Your task to perform on an android device: Open battery settings Image 0: 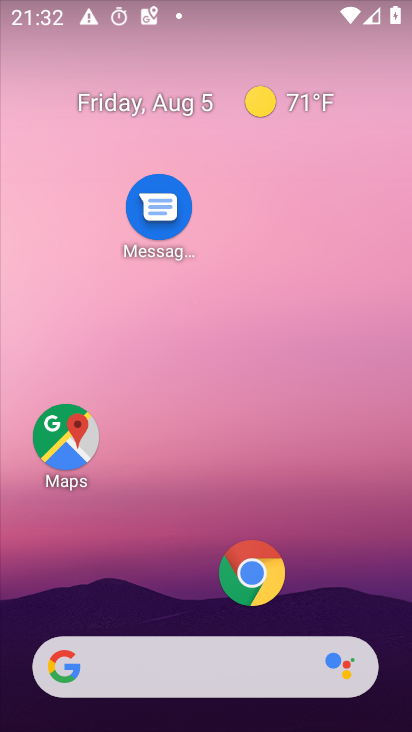
Step 0: press home button
Your task to perform on an android device: Open battery settings Image 1: 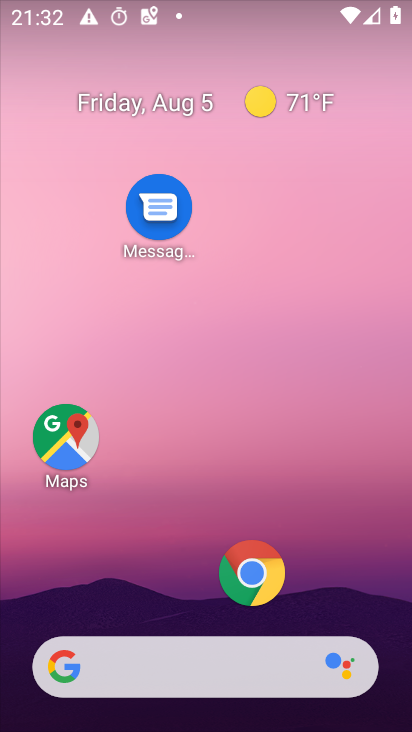
Step 1: click (231, 33)
Your task to perform on an android device: Open battery settings Image 2: 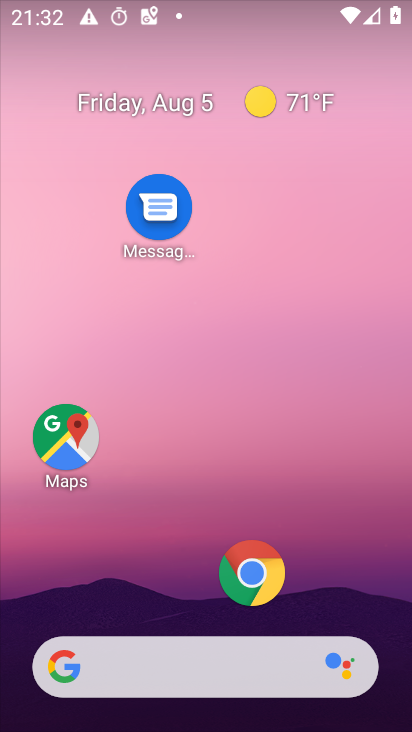
Step 2: drag from (314, 608) to (329, 2)
Your task to perform on an android device: Open battery settings Image 3: 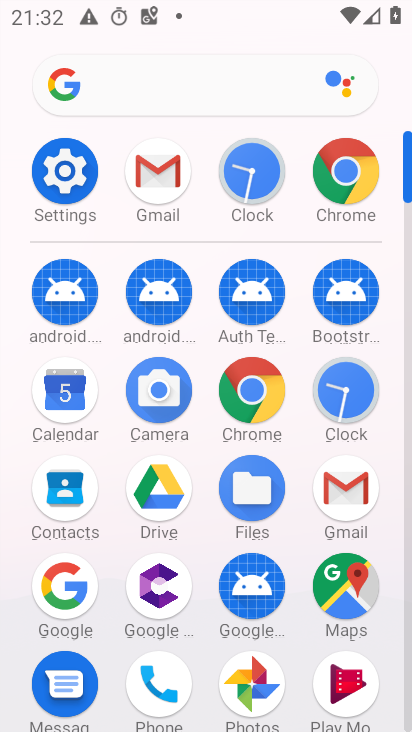
Step 3: click (59, 163)
Your task to perform on an android device: Open battery settings Image 4: 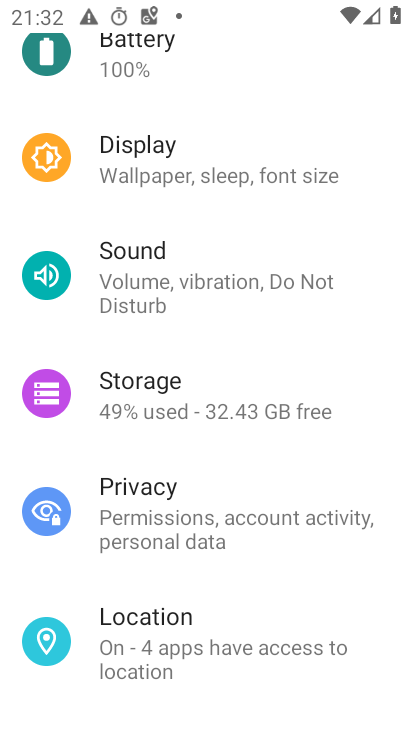
Step 4: click (176, 51)
Your task to perform on an android device: Open battery settings Image 5: 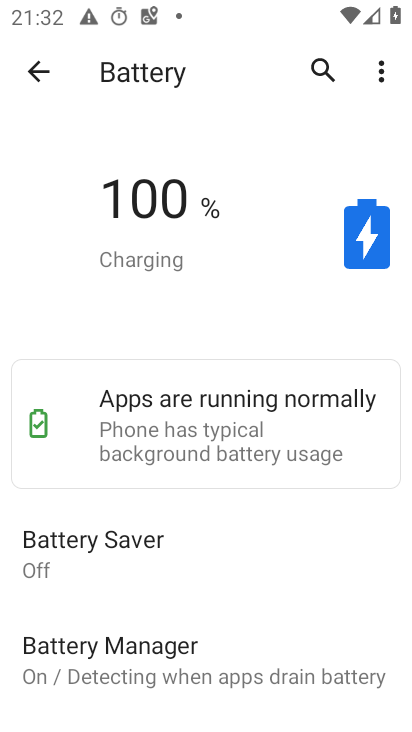
Step 5: task complete